Your task to perform on an android device: turn on bluetooth scan Image 0: 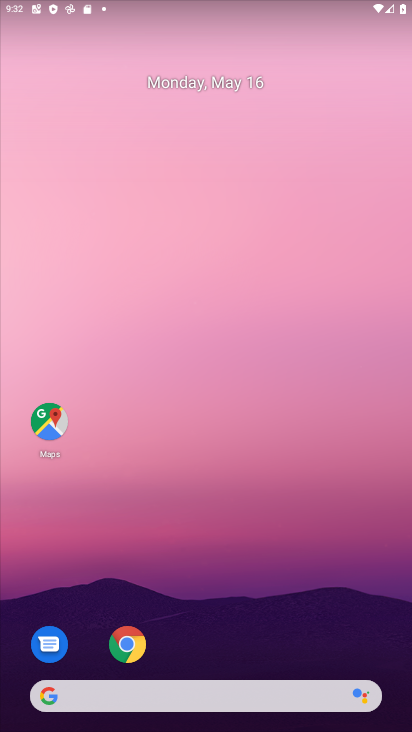
Step 0: drag from (191, 726) to (182, 68)
Your task to perform on an android device: turn on bluetooth scan Image 1: 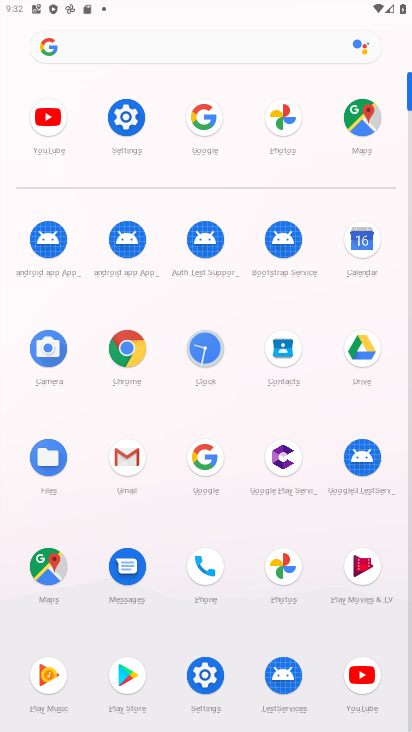
Step 1: click (122, 124)
Your task to perform on an android device: turn on bluetooth scan Image 2: 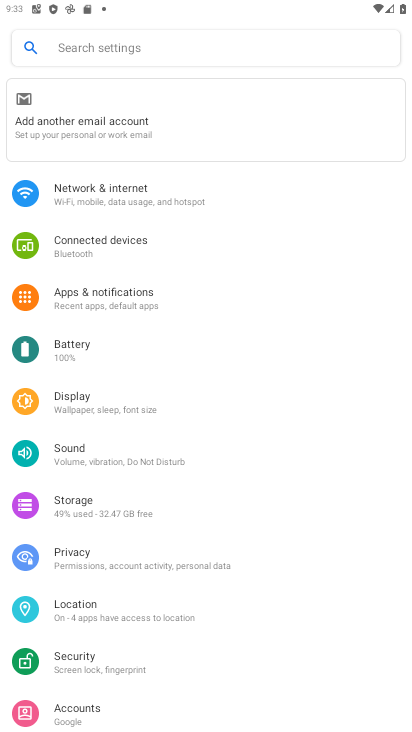
Step 2: click (129, 613)
Your task to perform on an android device: turn on bluetooth scan Image 3: 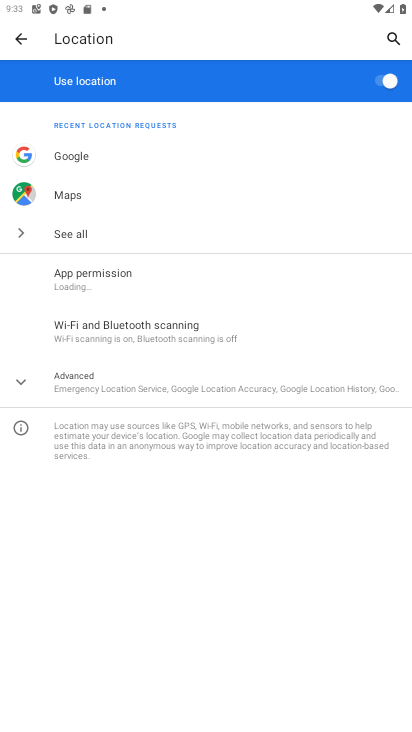
Step 3: click (178, 341)
Your task to perform on an android device: turn on bluetooth scan Image 4: 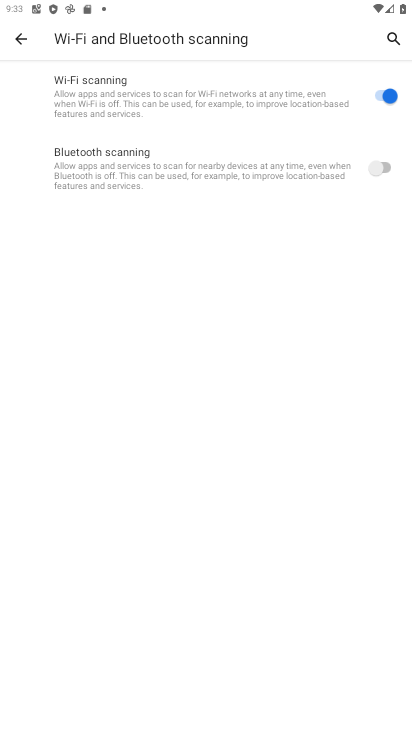
Step 4: click (381, 164)
Your task to perform on an android device: turn on bluetooth scan Image 5: 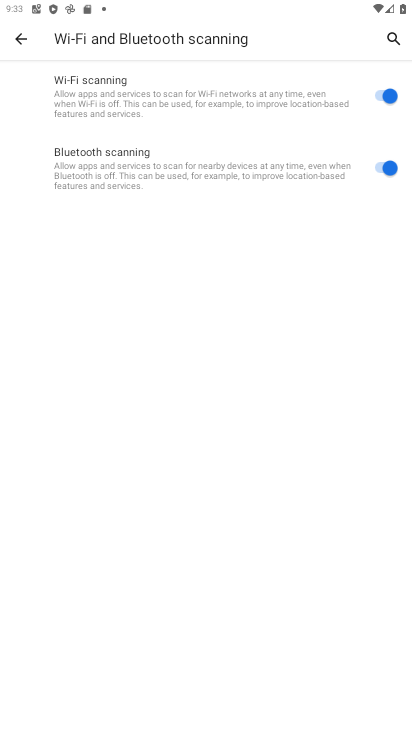
Step 5: task complete